Your task to perform on an android device: set the timer Image 0: 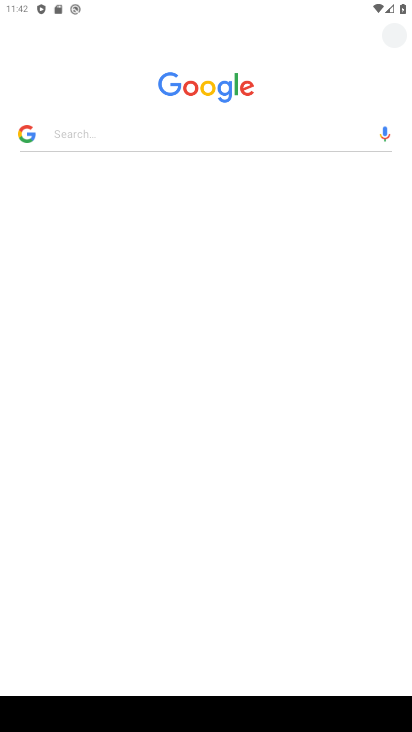
Step 0: press home button
Your task to perform on an android device: set the timer Image 1: 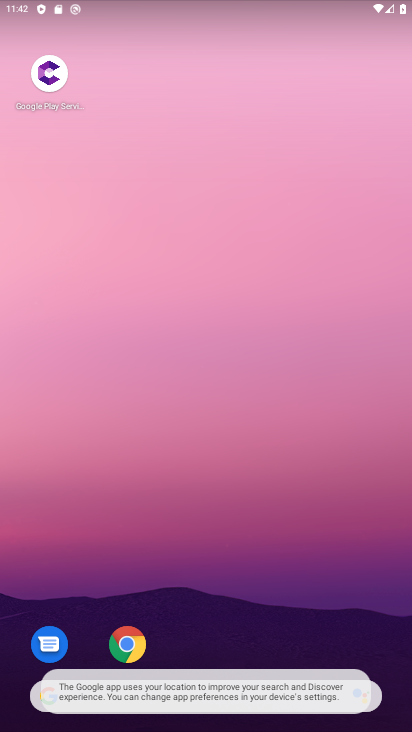
Step 1: drag from (364, 464) to (329, 151)
Your task to perform on an android device: set the timer Image 2: 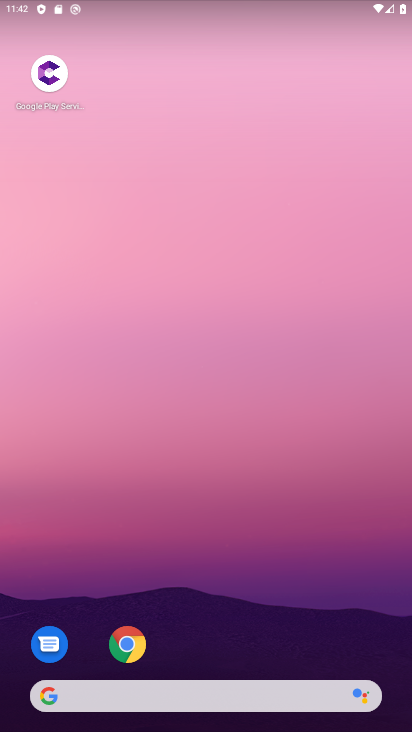
Step 2: drag from (368, 619) to (312, 90)
Your task to perform on an android device: set the timer Image 3: 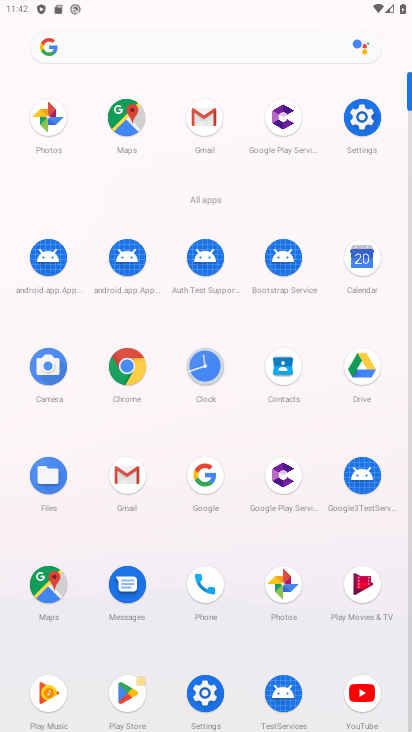
Step 3: click (206, 364)
Your task to perform on an android device: set the timer Image 4: 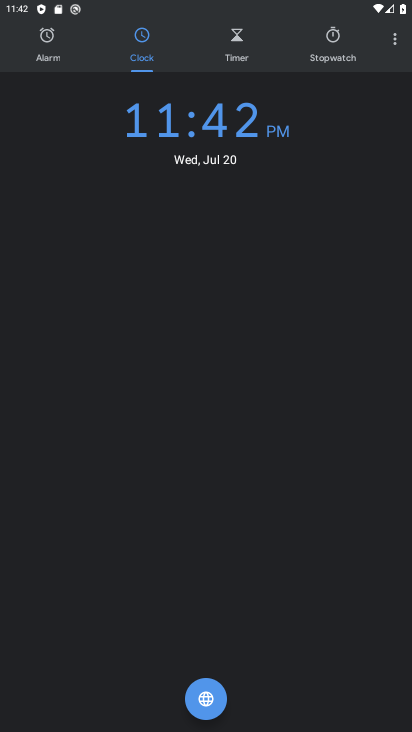
Step 4: click (237, 39)
Your task to perform on an android device: set the timer Image 5: 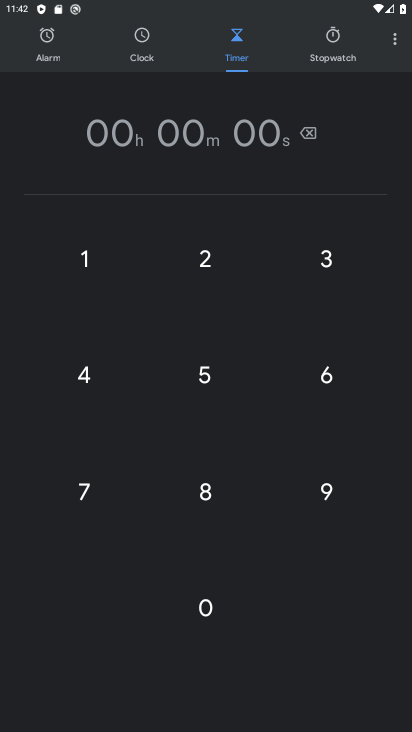
Step 5: click (86, 264)
Your task to perform on an android device: set the timer Image 6: 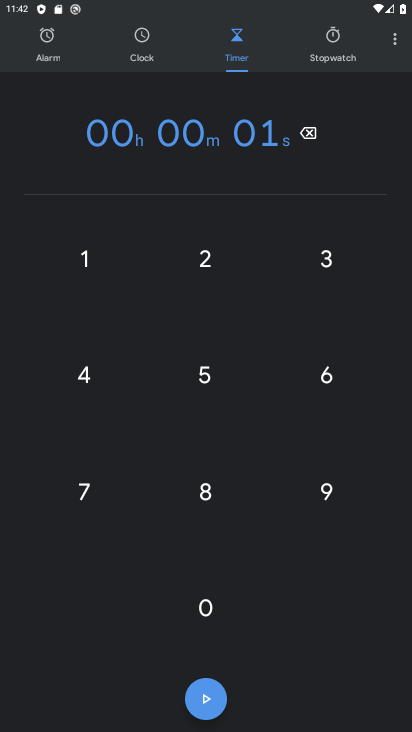
Step 6: click (322, 264)
Your task to perform on an android device: set the timer Image 7: 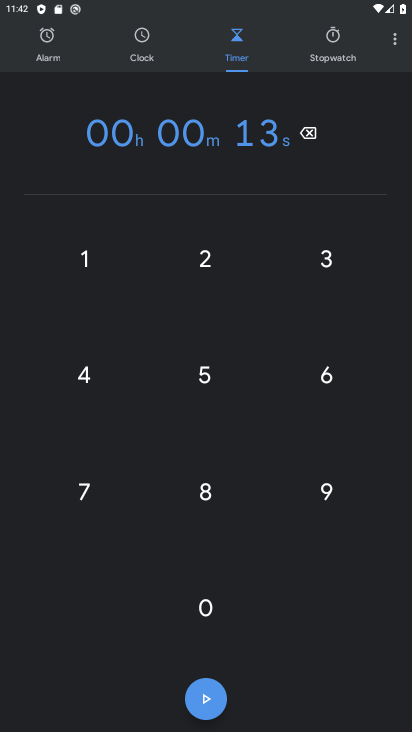
Step 7: click (209, 604)
Your task to perform on an android device: set the timer Image 8: 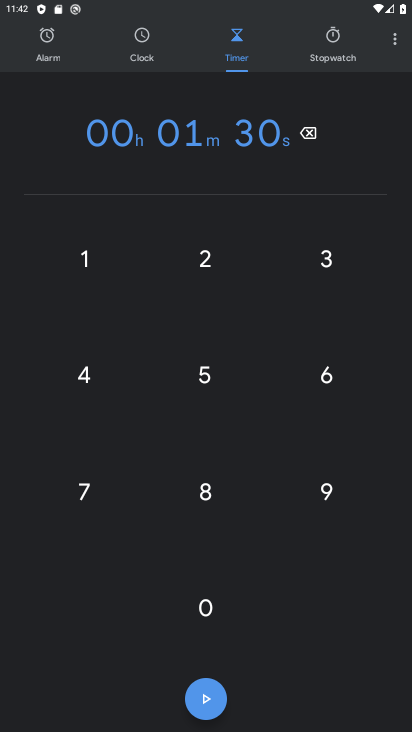
Step 8: click (209, 604)
Your task to perform on an android device: set the timer Image 9: 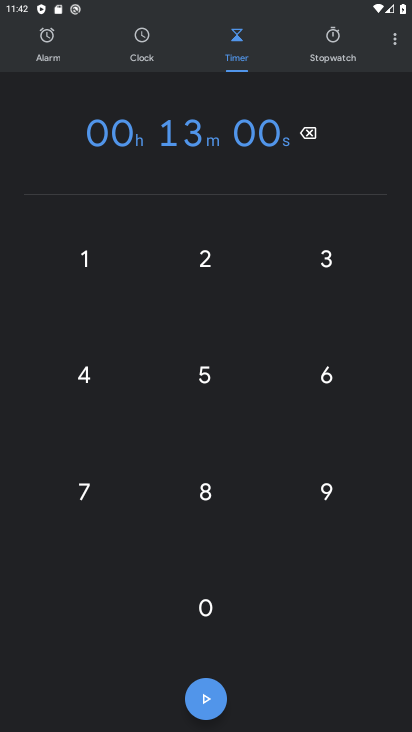
Step 9: click (209, 604)
Your task to perform on an android device: set the timer Image 10: 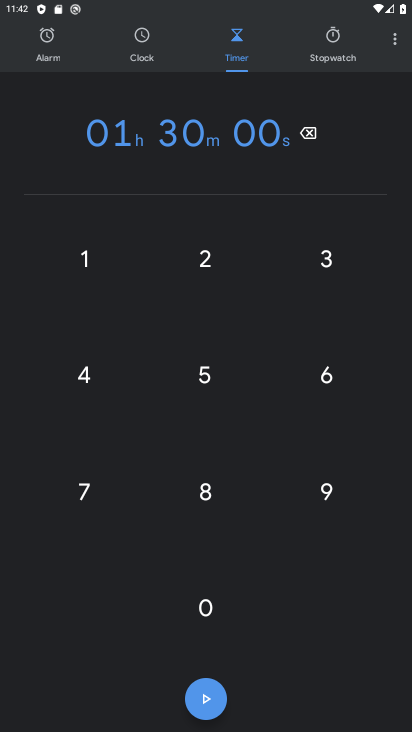
Step 10: task complete